Your task to perform on an android device: remove spam from my inbox in the gmail app Image 0: 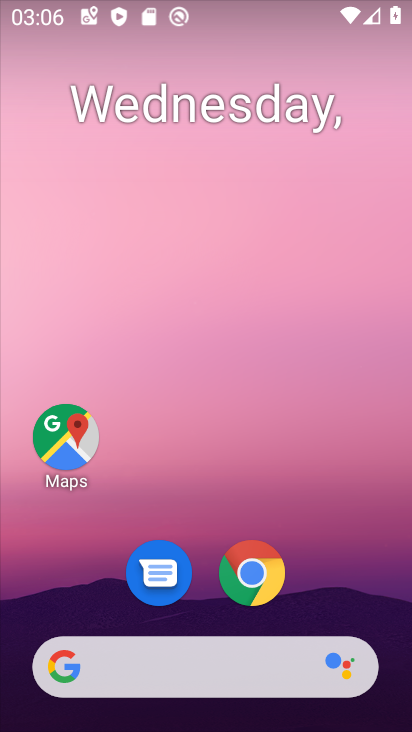
Step 0: drag from (336, 595) to (248, 5)
Your task to perform on an android device: remove spam from my inbox in the gmail app Image 1: 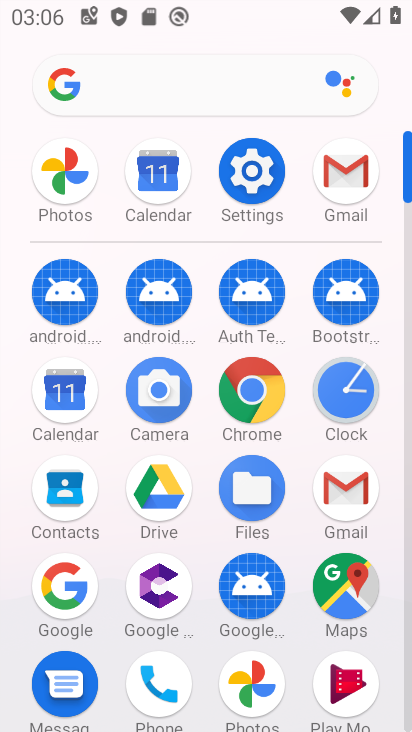
Step 1: click (345, 172)
Your task to perform on an android device: remove spam from my inbox in the gmail app Image 2: 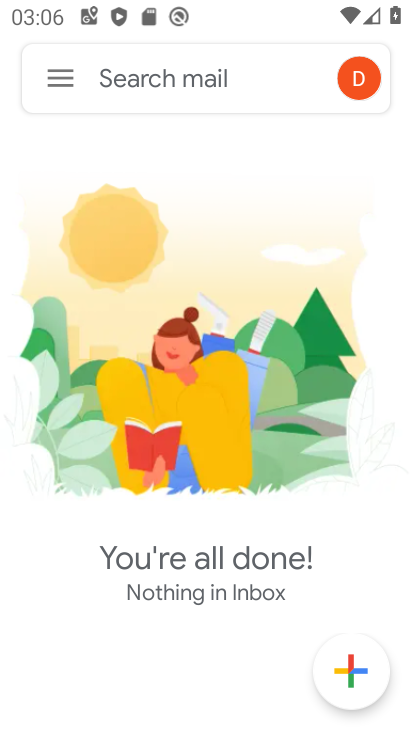
Step 2: click (58, 71)
Your task to perform on an android device: remove spam from my inbox in the gmail app Image 3: 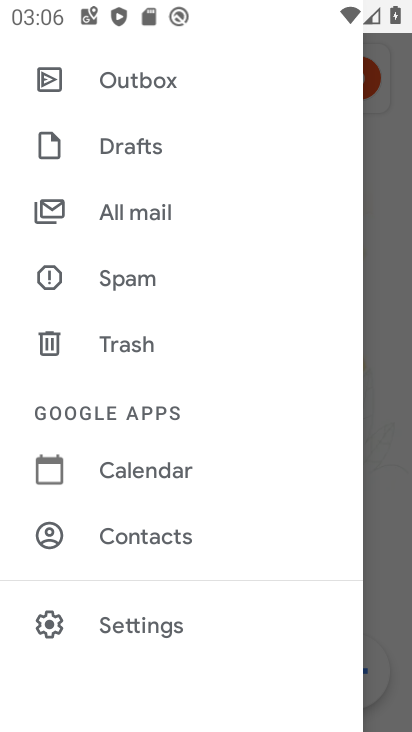
Step 3: click (121, 283)
Your task to perform on an android device: remove spam from my inbox in the gmail app Image 4: 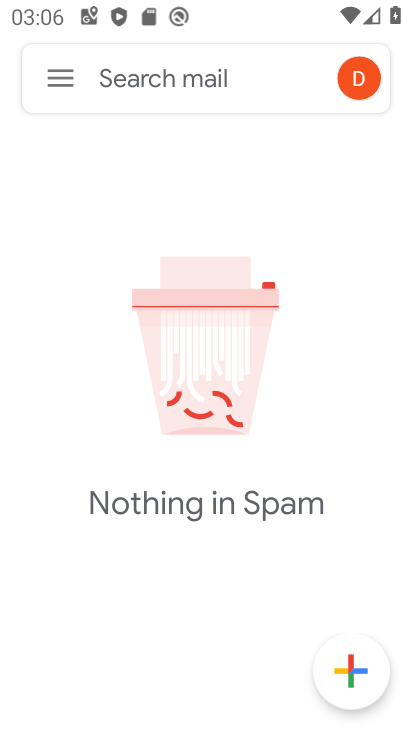
Step 4: task complete